Your task to perform on an android device: Show me the alarms in the clock app Image 0: 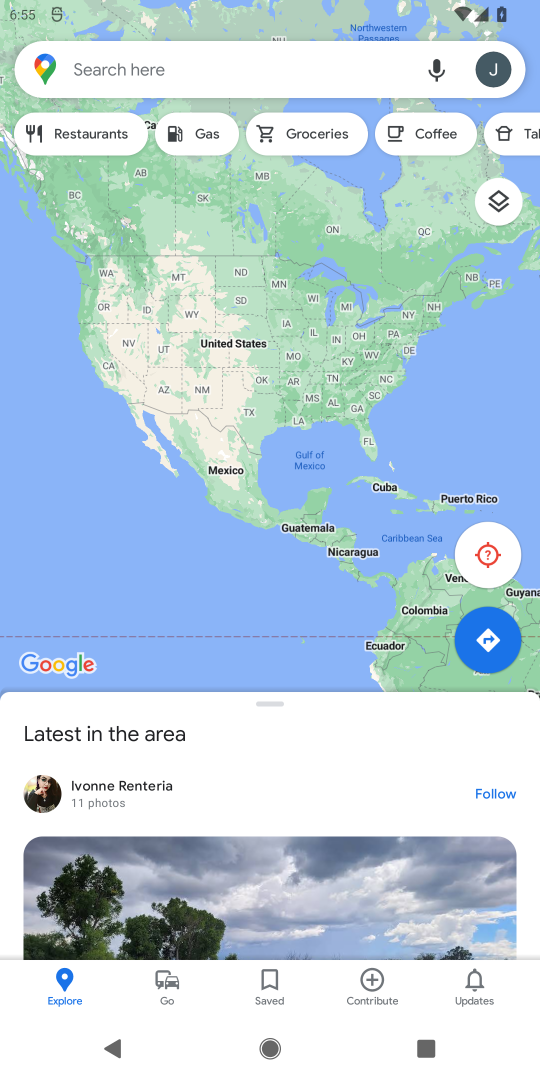
Step 0: press home button
Your task to perform on an android device: Show me the alarms in the clock app Image 1: 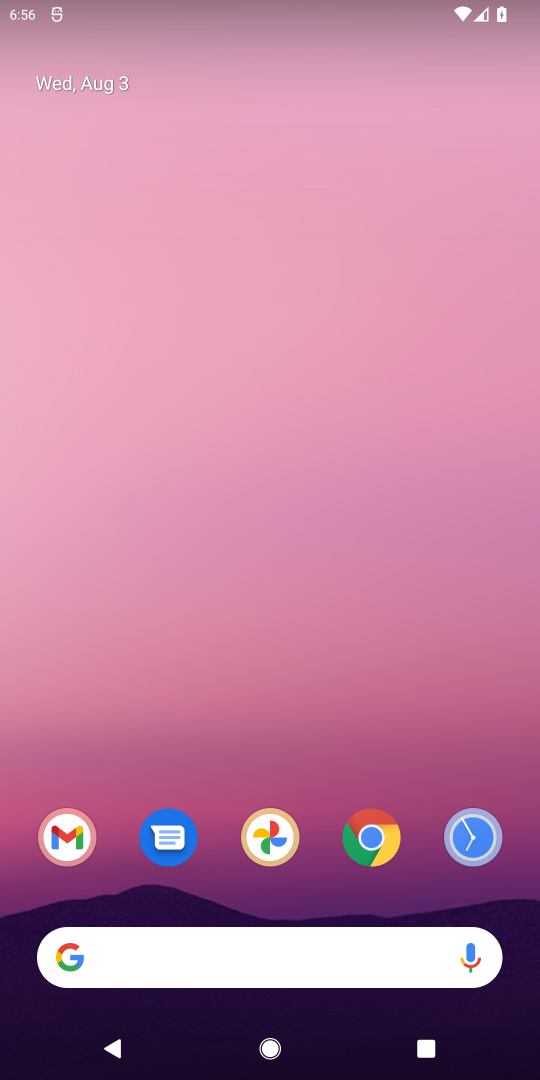
Step 1: press home button
Your task to perform on an android device: Show me the alarms in the clock app Image 2: 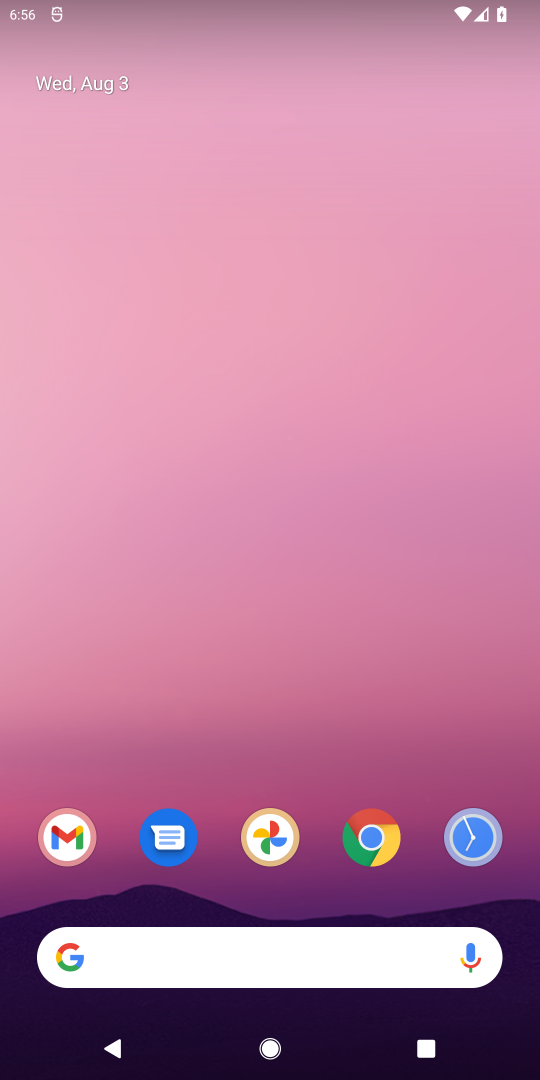
Step 2: drag from (300, 749) to (234, 221)
Your task to perform on an android device: Show me the alarms in the clock app Image 3: 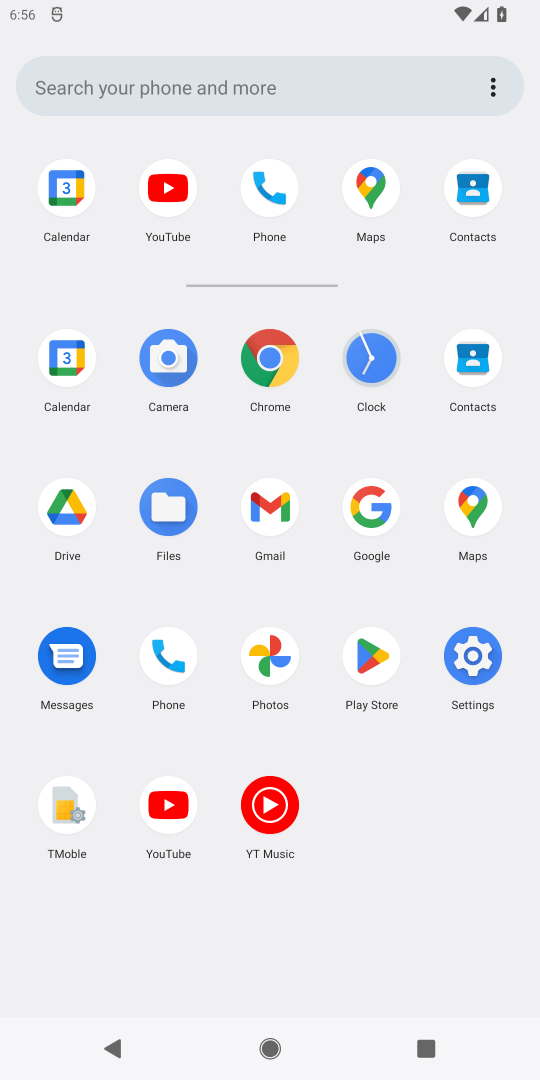
Step 3: click (365, 359)
Your task to perform on an android device: Show me the alarms in the clock app Image 4: 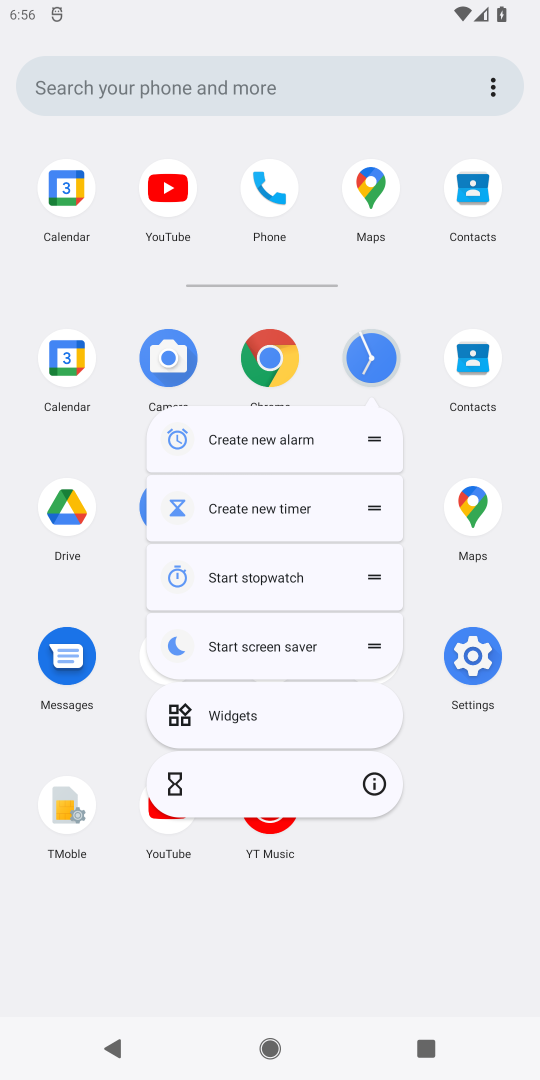
Step 4: click (365, 359)
Your task to perform on an android device: Show me the alarms in the clock app Image 5: 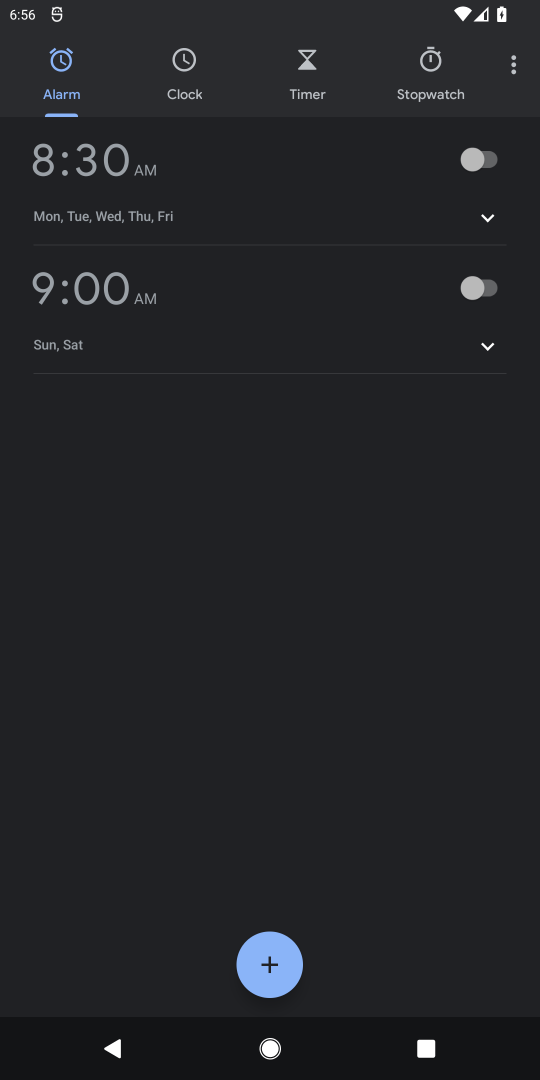
Step 5: task complete